Your task to perform on an android device: delete location history Image 0: 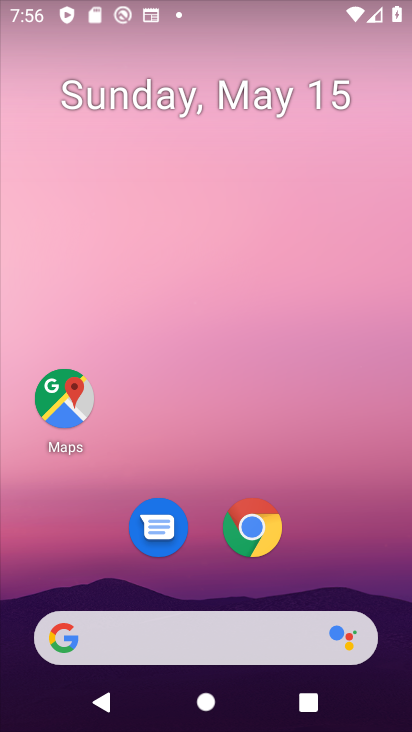
Step 0: drag from (211, 578) to (234, 164)
Your task to perform on an android device: delete location history Image 1: 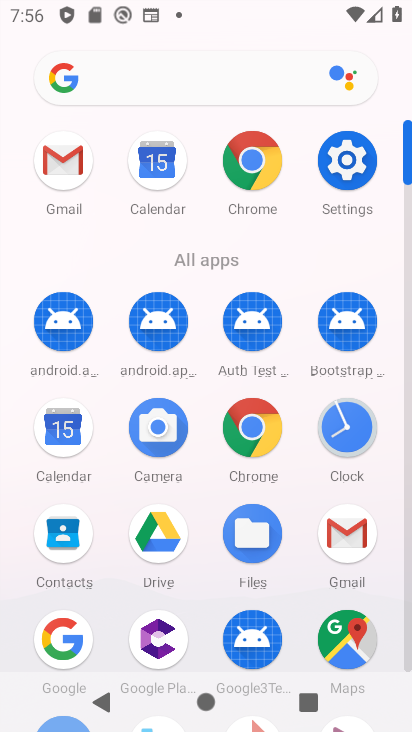
Step 1: click (344, 639)
Your task to perform on an android device: delete location history Image 2: 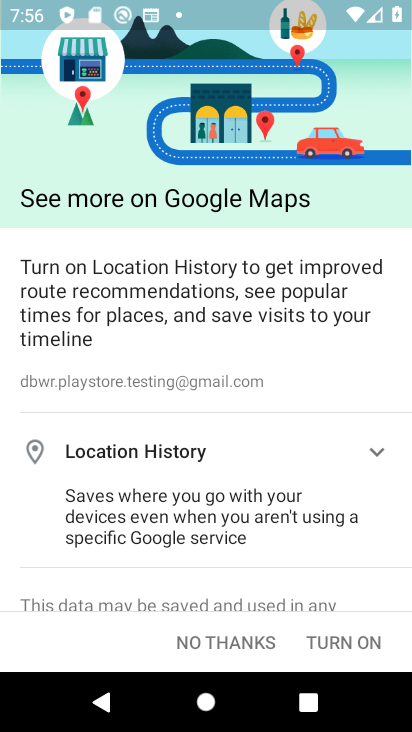
Step 2: click (343, 638)
Your task to perform on an android device: delete location history Image 3: 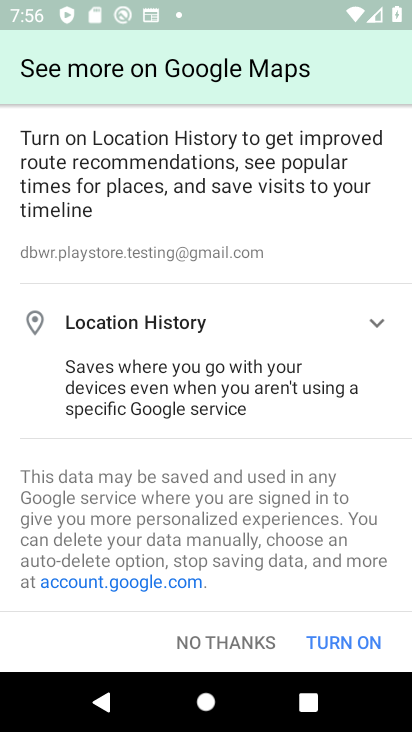
Step 3: click (343, 638)
Your task to perform on an android device: delete location history Image 4: 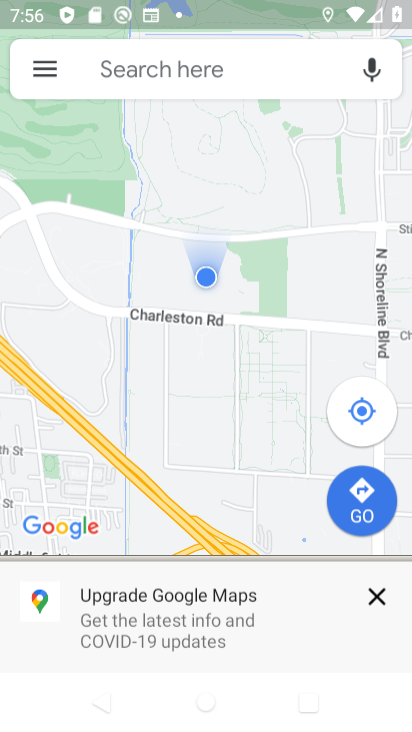
Step 4: click (336, 637)
Your task to perform on an android device: delete location history Image 5: 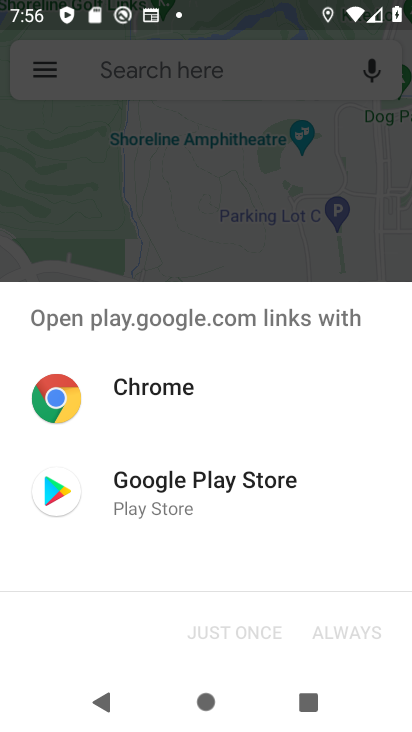
Step 5: click (371, 618)
Your task to perform on an android device: delete location history Image 6: 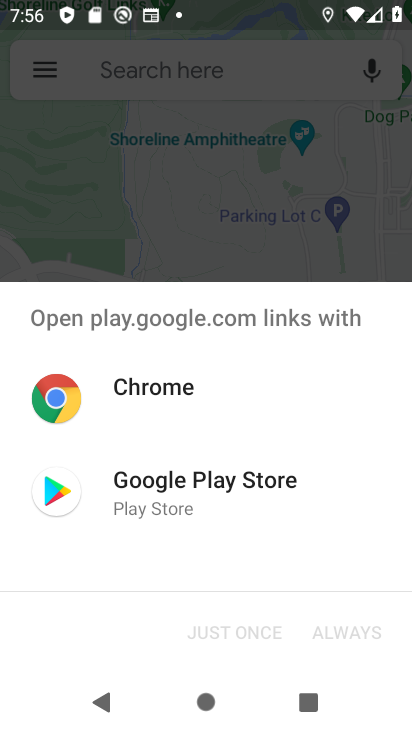
Step 6: click (209, 207)
Your task to perform on an android device: delete location history Image 7: 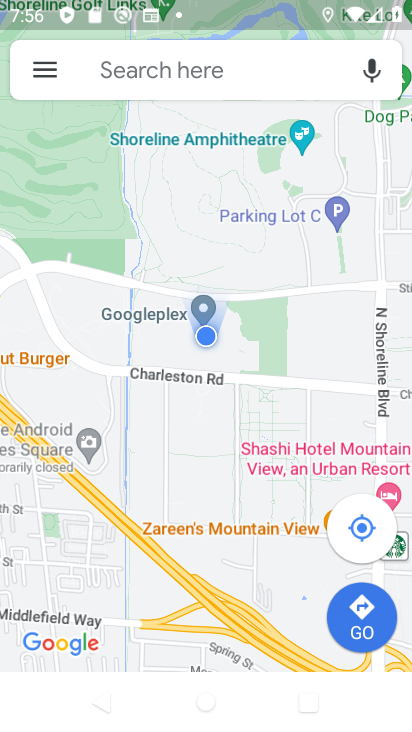
Step 7: click (47, 78)
Your task to perform on an android device: delete location history Image 8: 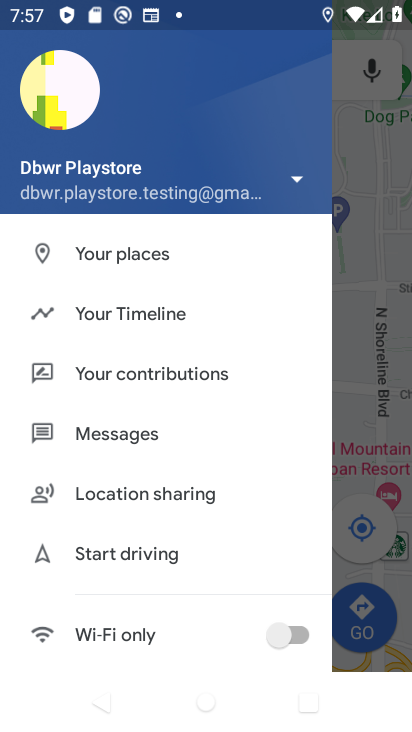
Step 8: click (100, 314)
Your task to perform on an android device: delete location history Image 9: 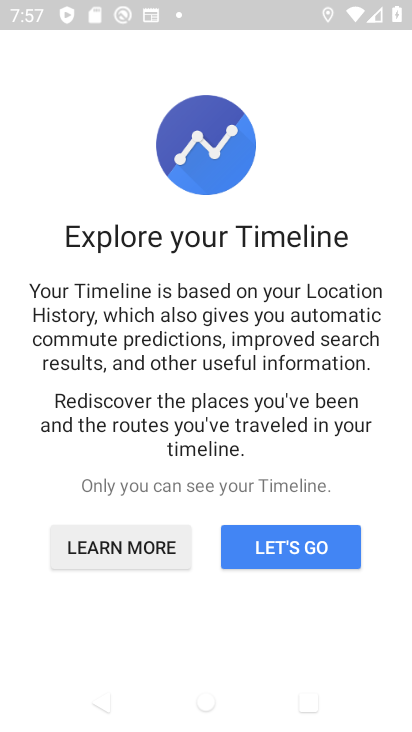
Step 9: click (296, 541)
Your task to perform on an android device: delete location history Image 10: 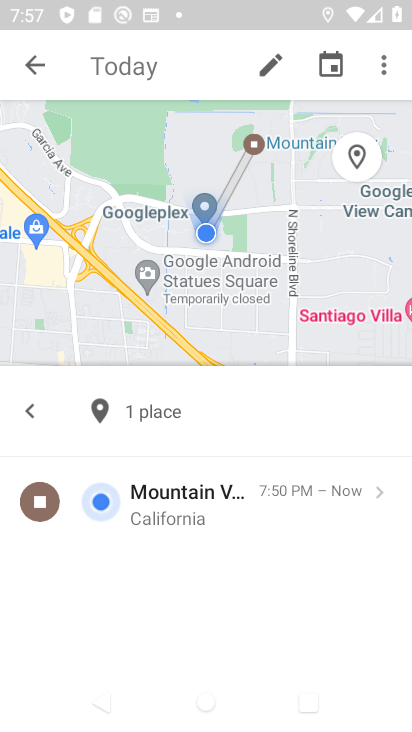
Step 10: click (390, 69)
Your task to perform on an android device: delete location history Image 11: 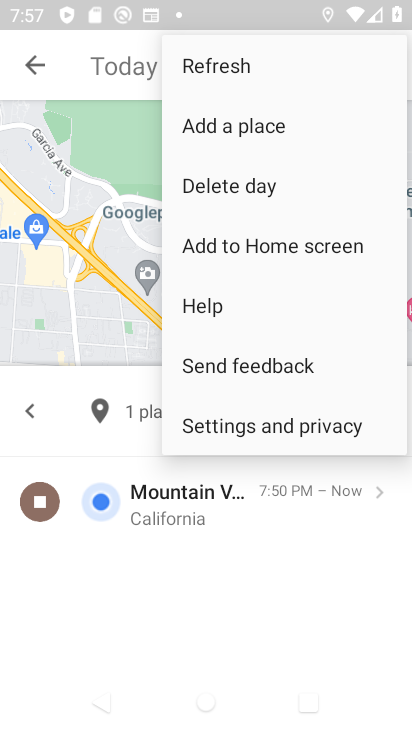
Step 11: click (225, 412)
Your task to perform on an android device: delete location history Image 12: 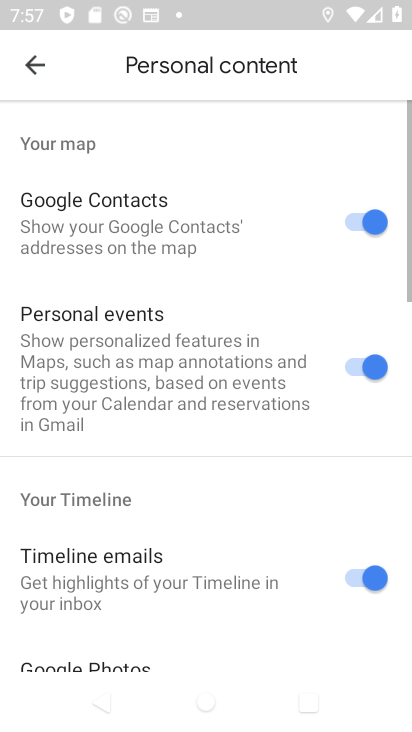
Step 12: drag from (239, 625) to (295, 148)
Your task to perform on an android device: delete location history Image 13: 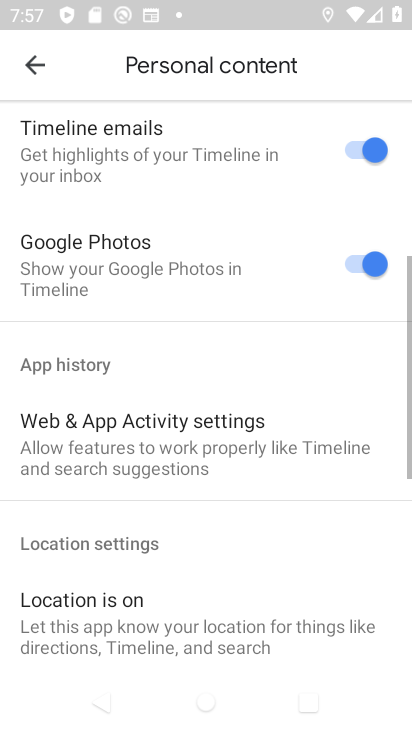
Step 13: drag from (182, 603) to (268, 217)
Your task to perform on an android device: delete location history Image 14: 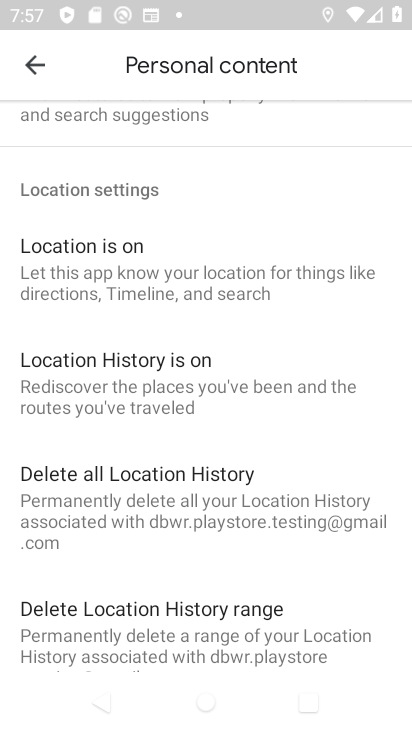
Step 14: click (207, 508)
Your task to perform on an android device: delete location history Image 15: 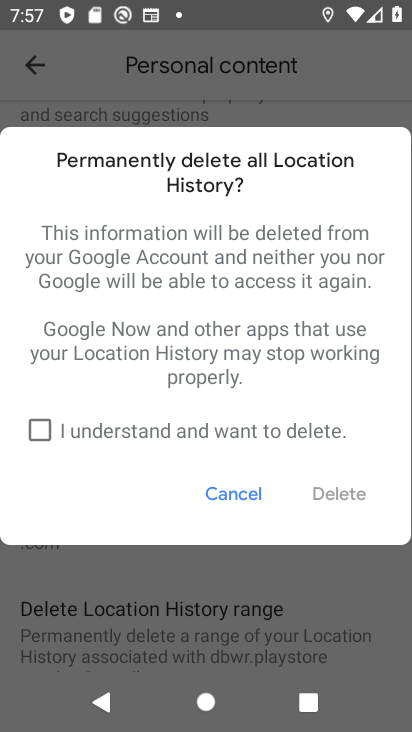
Step 15: click (102, 433)
Your task to perform on an android device: delete location history Image 16: 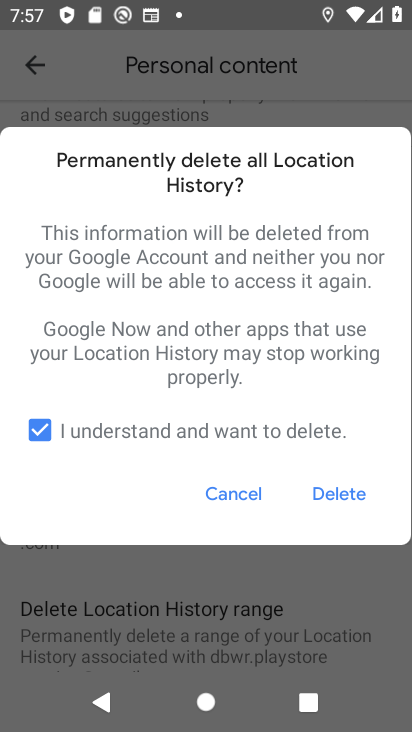
Step 16: click (323, 494)
Your task to perform on an android device: delete location history Image 17: 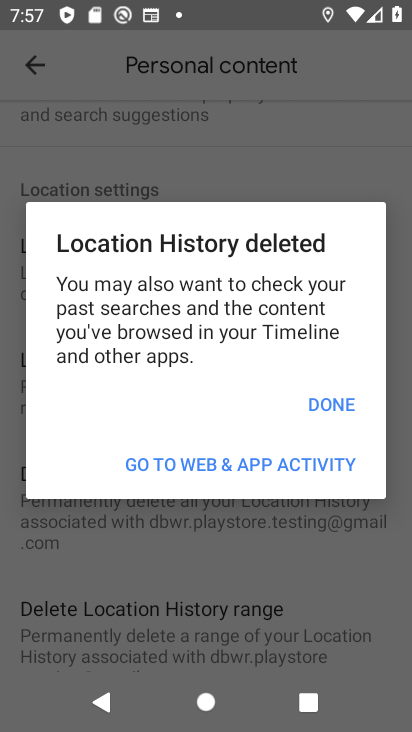
Step 17: click (310, 409)
Your task to perform on an android device: delete location history Image 18: 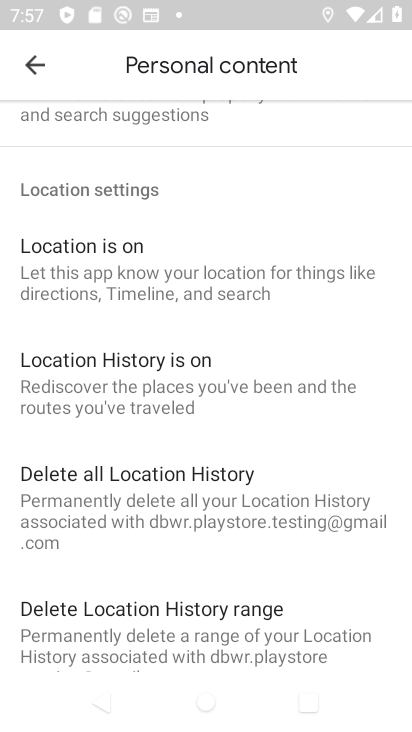
Step 18: task complete